Your task to perform on an android device: Go to CNN.com Image 0: 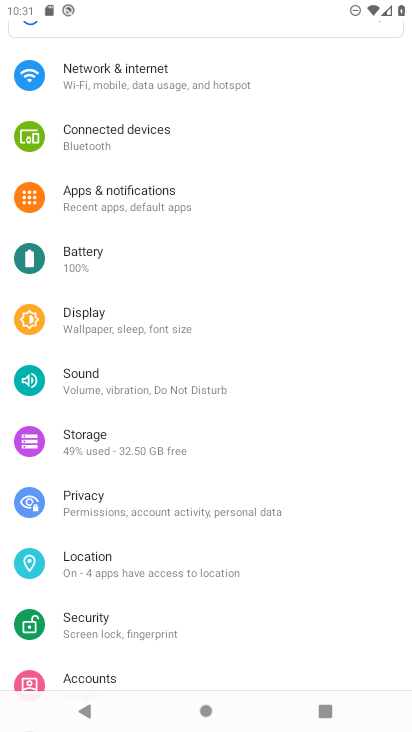
Step 0: press home button
Your task to perform on an android device: Go to CNN.com Image 1: 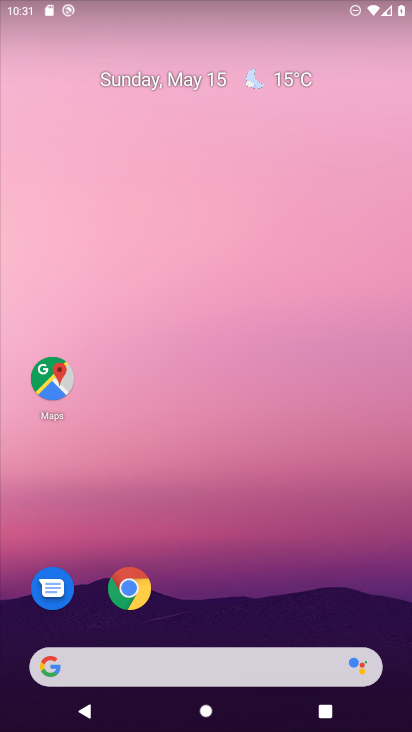
Step 1: click (136, 596)
Your task to perform on an android device: Go to CNN.com Image 2: 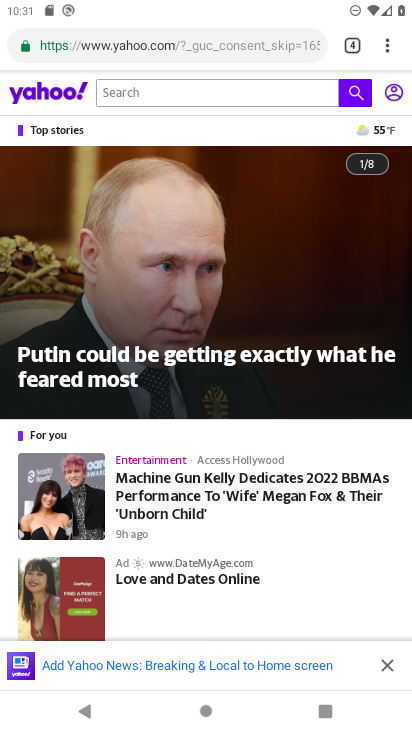
Step 2: click (156, 49)
Your task to perform on an android device: Go to CNN.com Image 3: 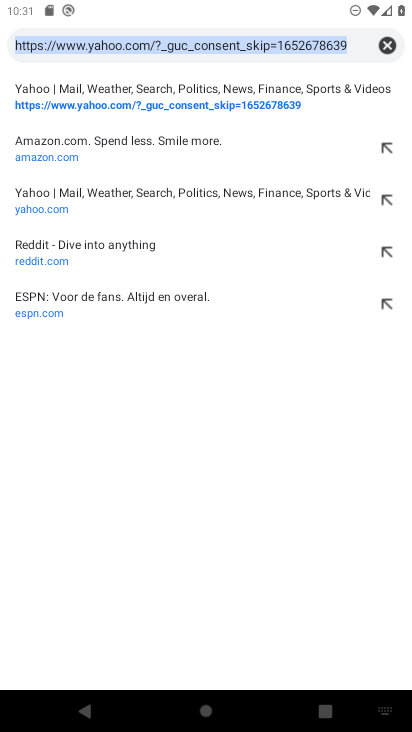
Step 3: type "CNN.com"
Your task to perform on an android device: Go to CNN.com Image 4: 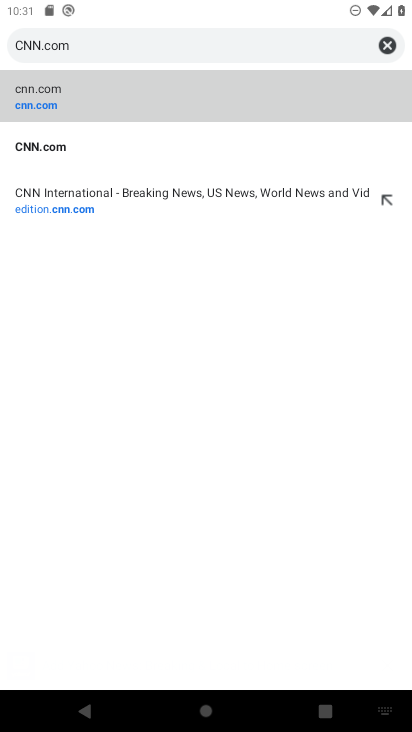
Step 4: click (86, 99)
Your task to perform on an android device: Go to CNN.com Image 5: 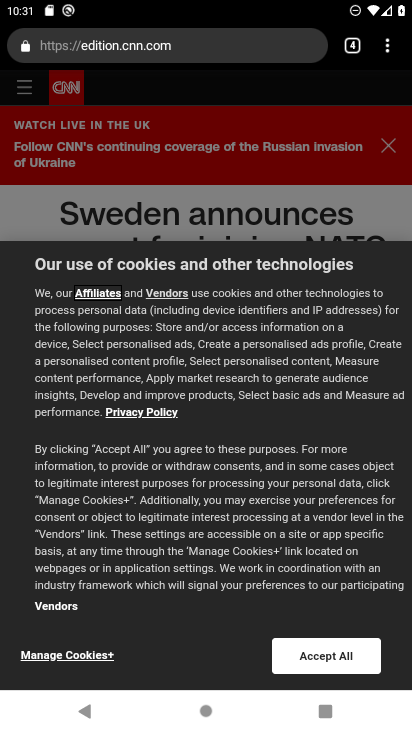
Step 5: task complete